Your task to perform on an android device: turn off location Image 0: 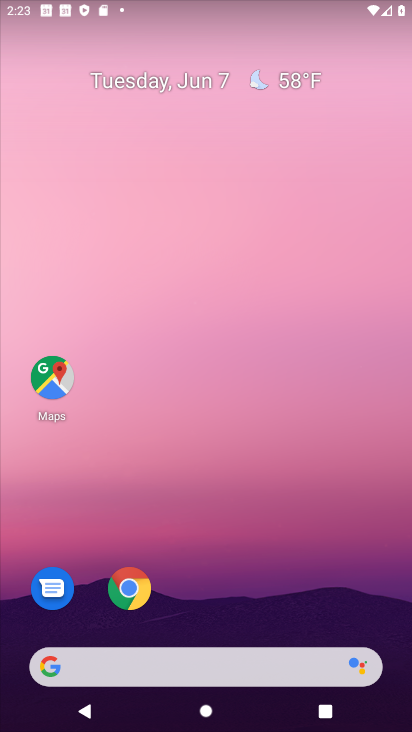
Step 0: drag from (305, 618) to (180, 79)
Your task to perform on an android device: turn off location Image 1: 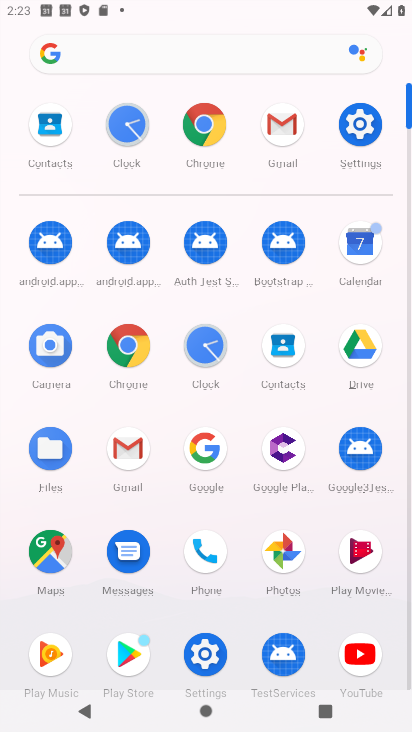
Step 1: click (202, 651)
Your task to perform on an android device: turn off location Image 2: 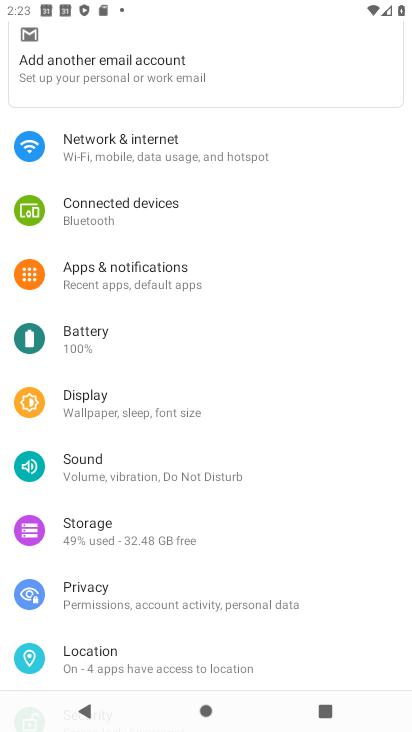
Step 2: click (132, 648)
Your task to perform on an android device: turn off location Image 3: 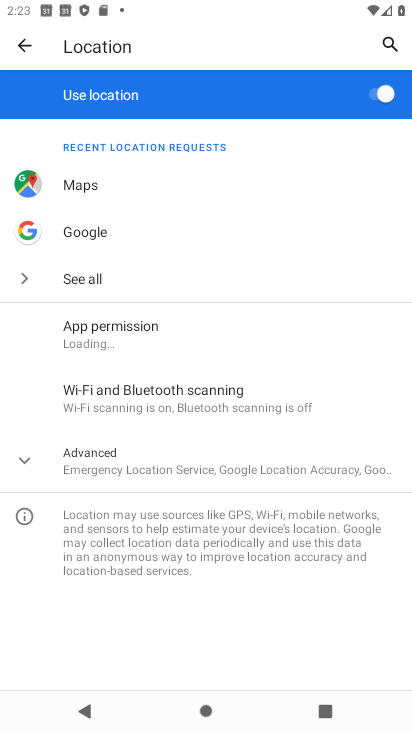
Step 3: task complete